Your task to perform on an android device: Show me popular videos on Youtube Image 0: 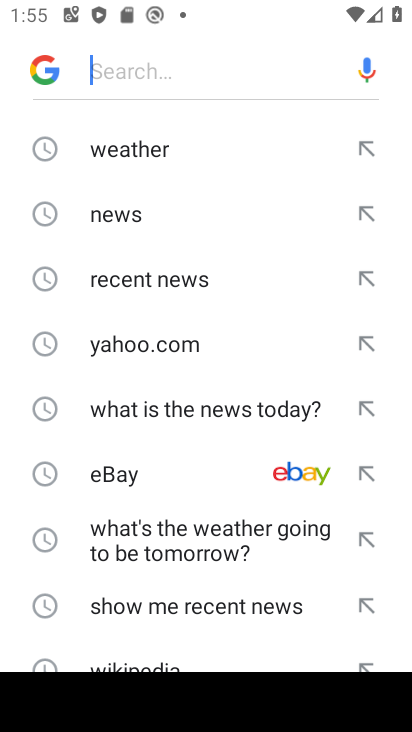
Step 0: press back button
Your task to perform on an android device: Show me popular videos on Youtube Image 1: 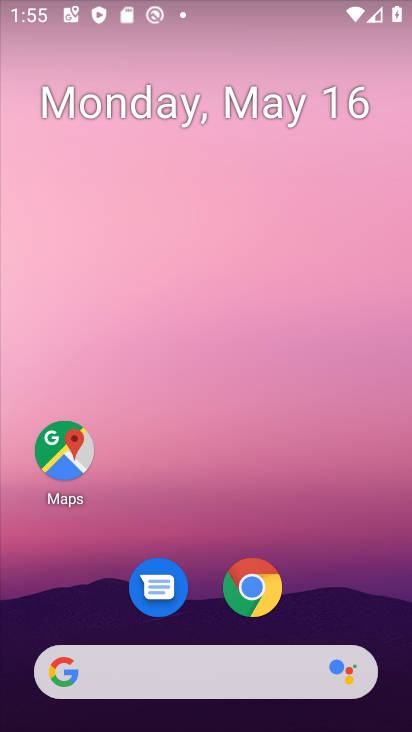
Step 1: drag from (318, 563) to (184, 142)
Your task to perform on an android device: Show me popular videos on Youtube Image 2: 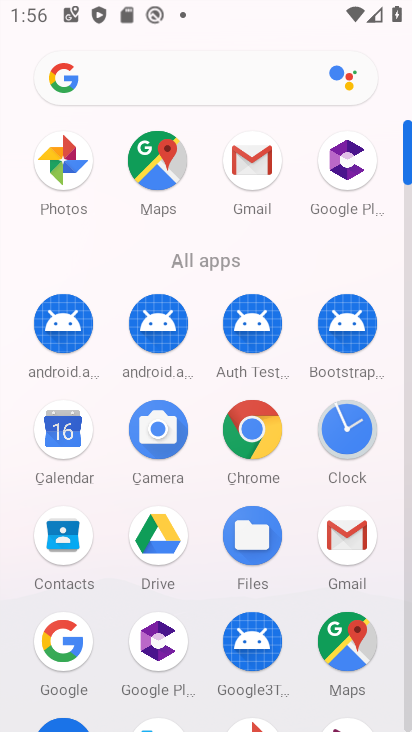
Step 2: drag from (276, 582) to (266, 289)
Your task to perform on an android device: Show me popular videos on Youtube Image 3: 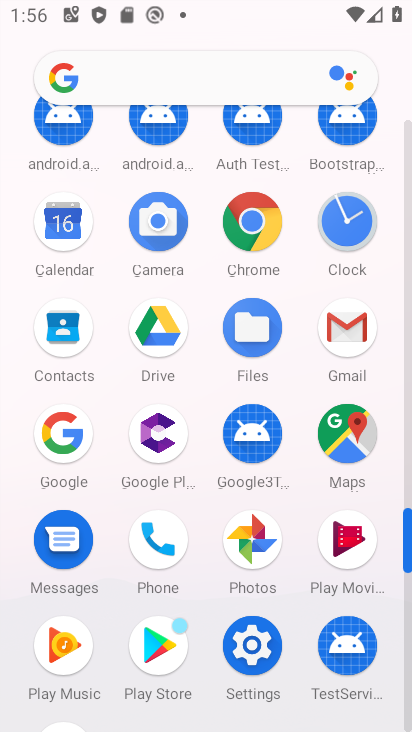
Step 3: drag from (220, 349) to (229, 668)
Your task to perform on an android device: Show me popular videos on Youtube Image 4: 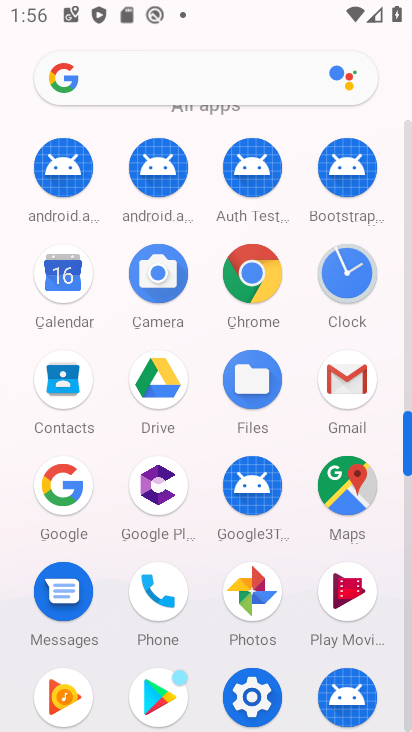
Step 4: drag from (214, 372) to (231, 609)
Your task to perform on an android device: Show me popular videos on Youtube Image 5: 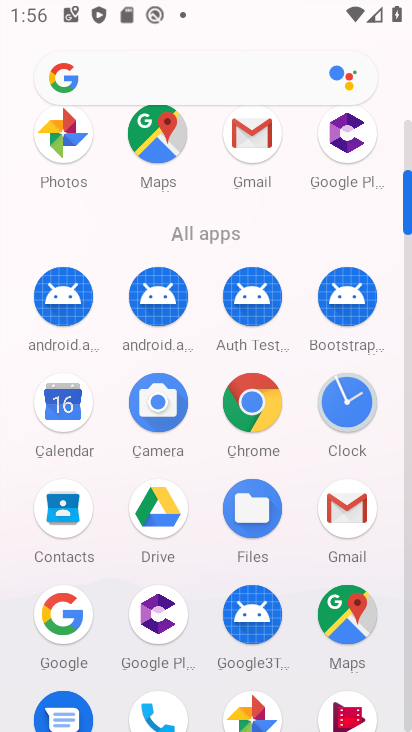
Step 5: drag from (268, 225) to (272, 592)
Your task to perform on an android device: Show me popular videos on Youtube Image 6: 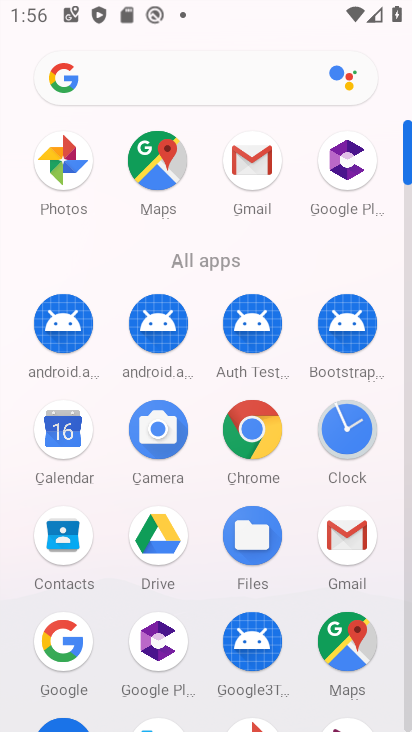
Step 6: drag from (227, 267) to (207, 558)
Your task to perform on an android device: Show me popular videos on Youtube Image 7: 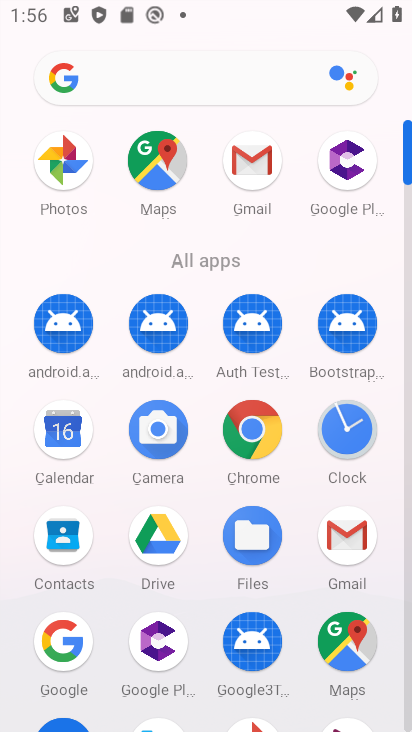
Step 7: drag from (279, 438) to (264, 153)
Your task to perform on an android device: Show me popular videos on Youtube Image 8: 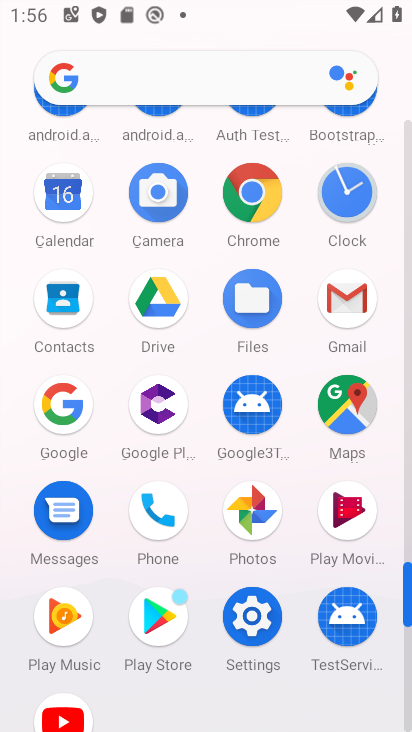
Step 8: drag from (240, 417) to (233, 142)
Your task to perform on an android device: Show me popular videos on Youtube Image 9: 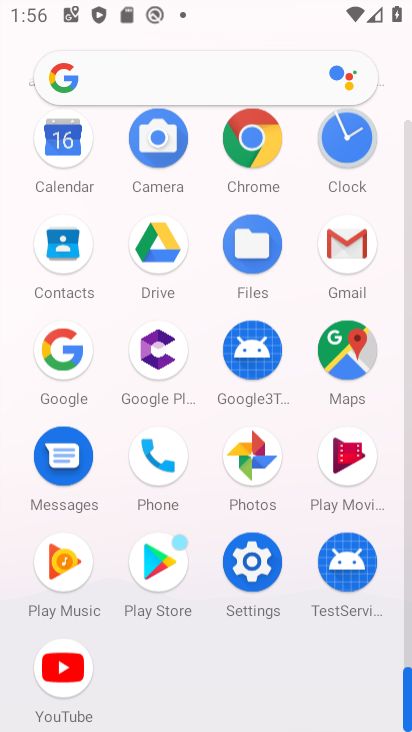
Step 9: drag from (255, 437) to (255, 187)
Your task to perform on an android device: Show me popular videos on Youtube Image 10: 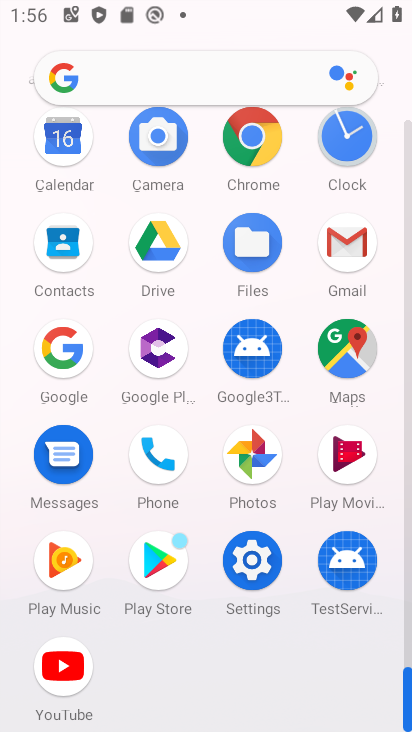
Step 10: click (64, 670)
Your task to perform on an android device: Show me popular videos on Youtube Image 11: 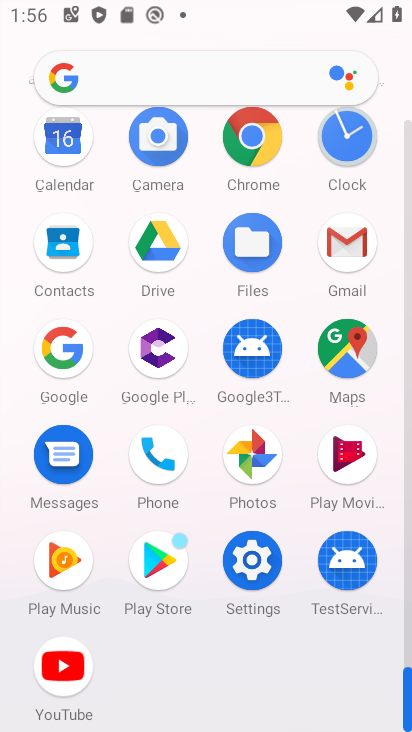
Step 11: click (64, 670)
Your task to perform on an android device: Show me popular videos on Youtube Image 12: 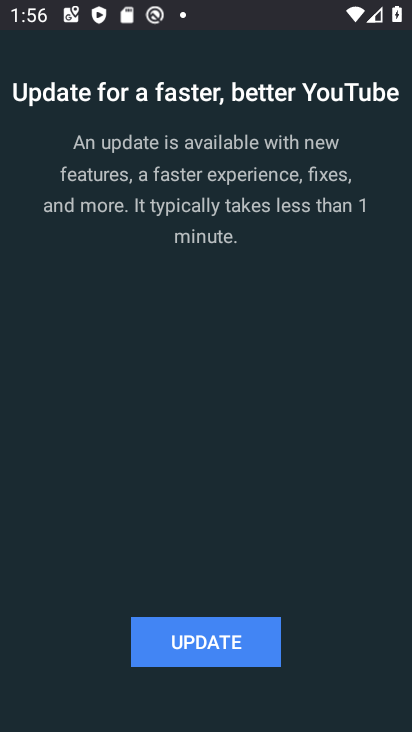
Step 12: click (197, 647)
Your task to perform on an android device: Show me popular videos on Youtube Image 13: 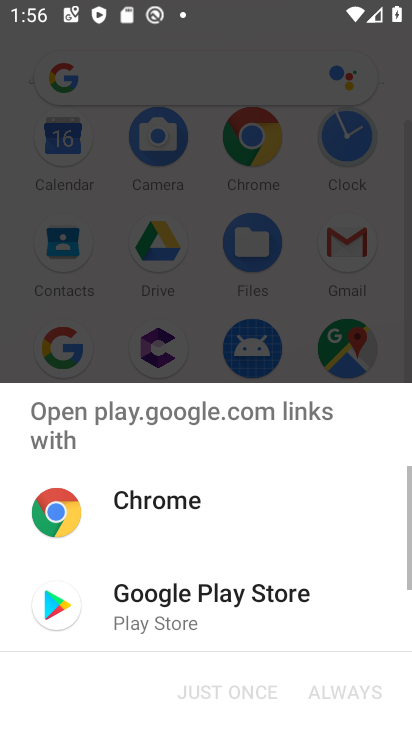
Step 13: click (186, 604)
Your task to perform on an android device: Show me popular videos on Youtube Image 14: 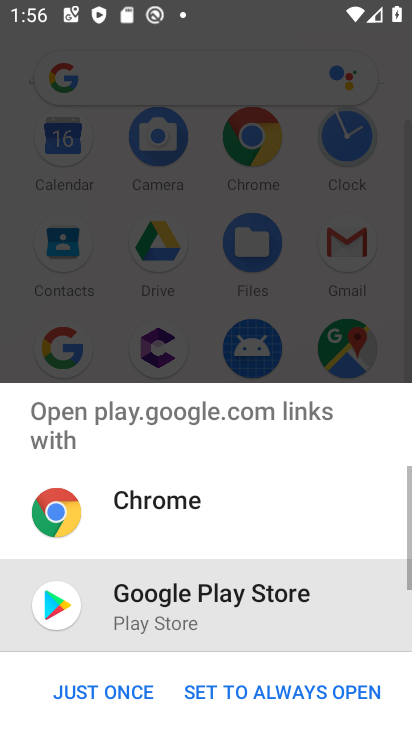
Step 14: click (181, 596)
Your task to perform on an android device: Show me popular videos on Youtube Image 15: 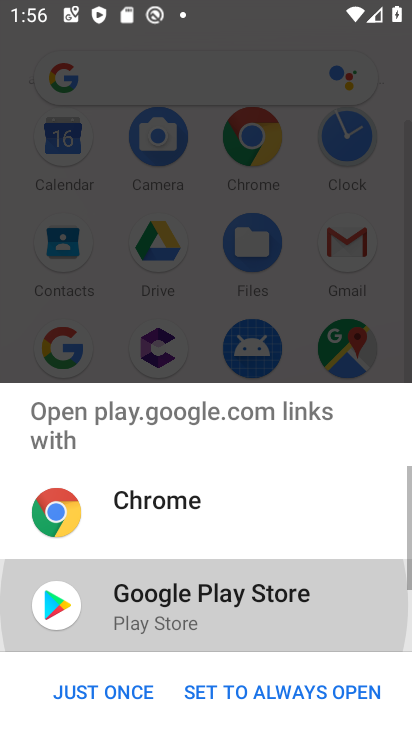
Step 15: click (181, 596)
Your task to perform on an android device: Show me popular videos on Youtube Image 16: 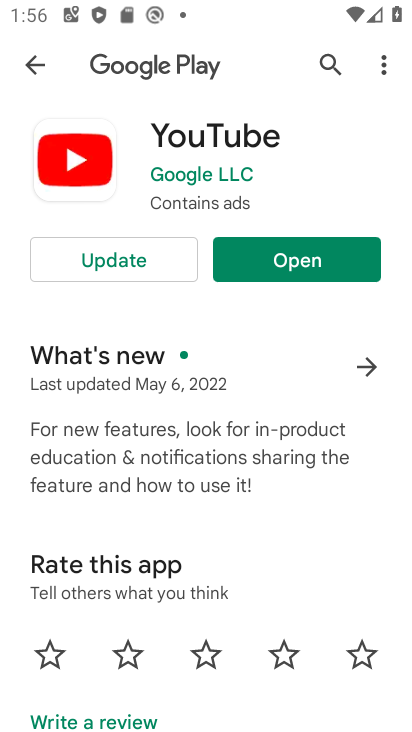
Step 16: click (158, 257)
Your task to perform on an android device: Show me popular videos on Youtube Image 17: 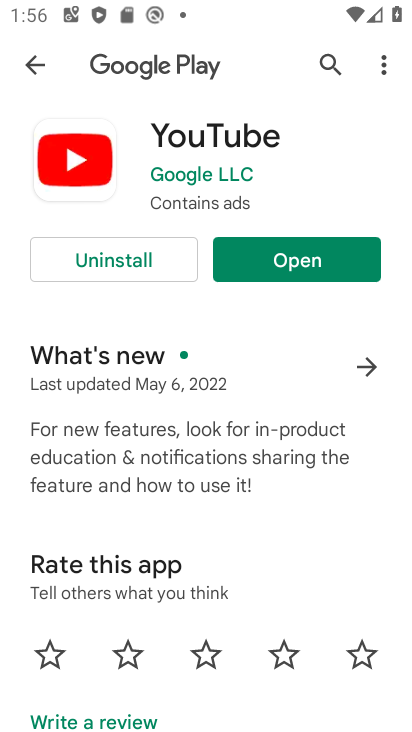
Step 17: click (274, 267)
Your task to perform on an android device: Show me popular videos on Youtube Image 18: 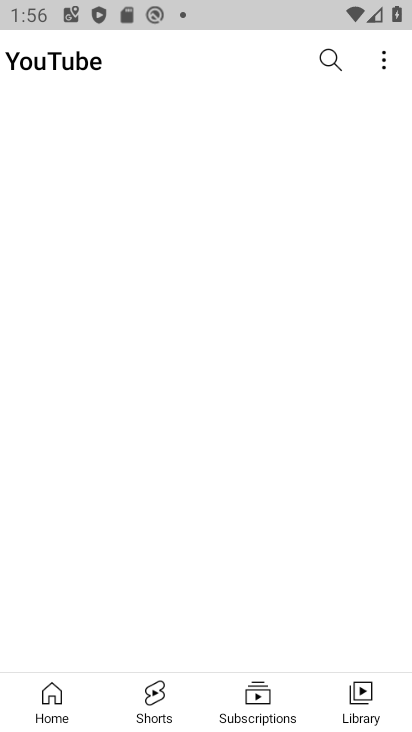
Step 18: click (222, 319)
Your task to perform on an android device: Show me popular videos on Youtube Image 19: 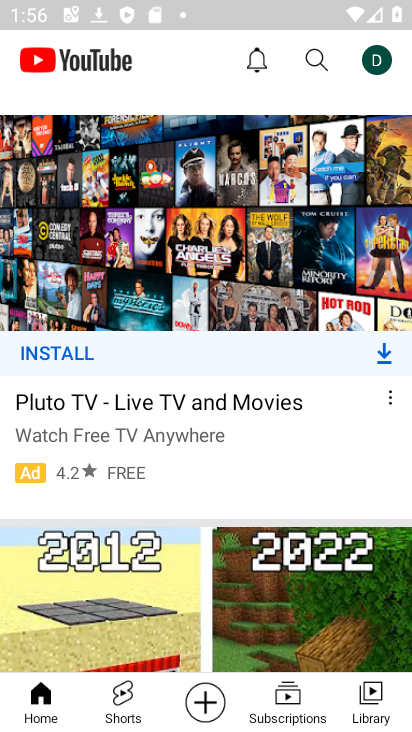
Step 19: task complete